Your task to perform on an android device: Go to Wikipedia Image 0: 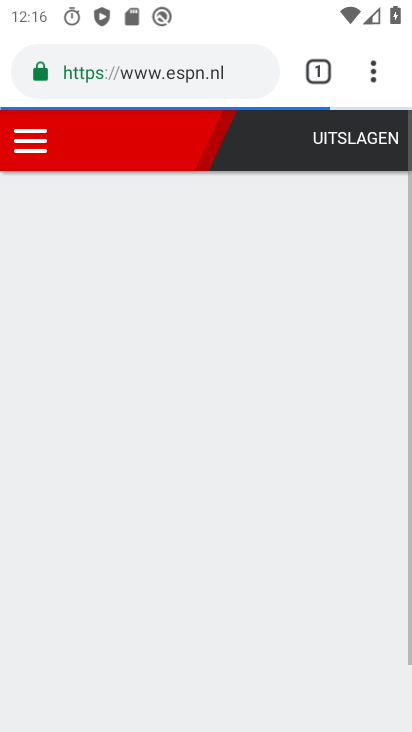
Step 0: click (187, 76)
Your task to perform on an android device: Go to Wikipedia Image 1: 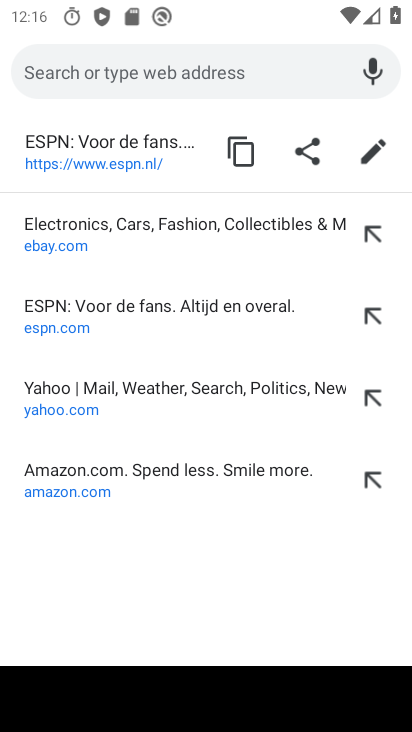
Step 1: type "wikipedia"
Your task to perform on an android device: Go to Wikipedia Image 2: 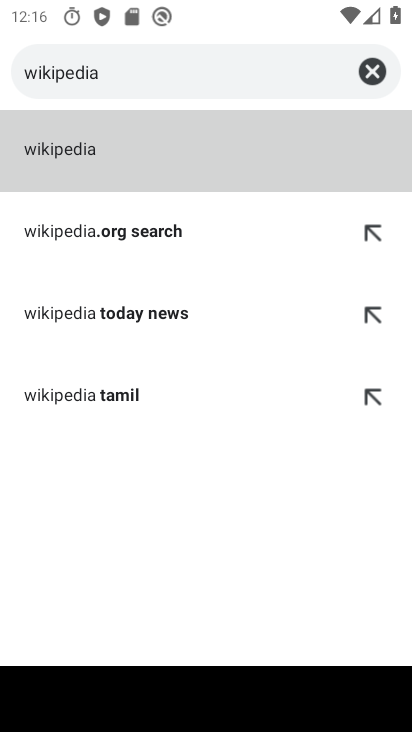
Step 2: click (42, 157)
Your task to perform on an android device: Go to Wikipedia Image 3: 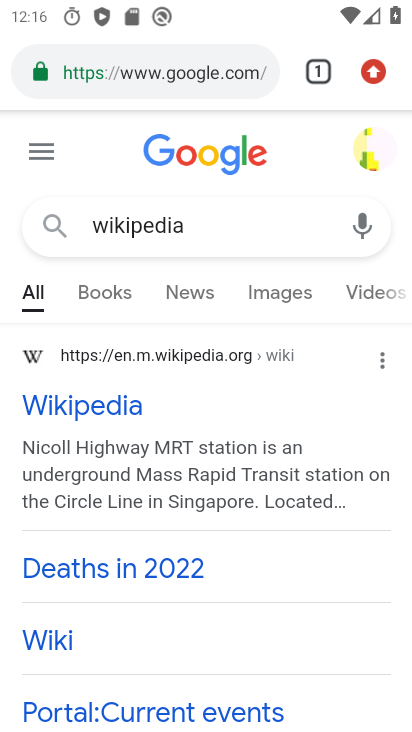
Step 3: click (111, 414)
Your task to perform on an android device: Go to Wikipedia Image 4: 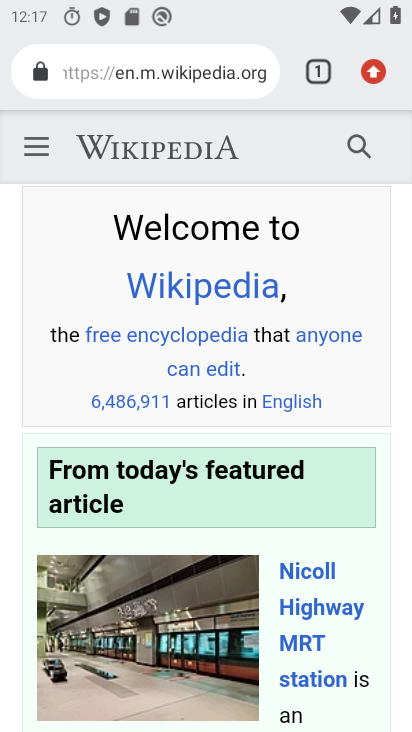
Step 4: task complete